Your task to perform on an android device: change your default location settings in chrome Image 0: 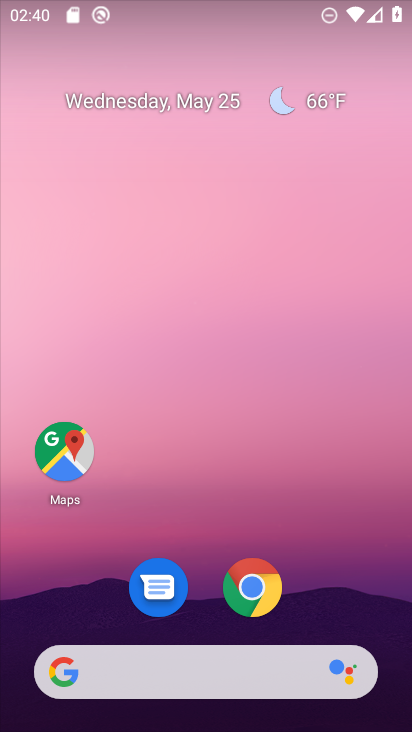
Step 0: drag from (361, 608) to (361, 361)
Your task to perform on an android device: change your default location settings in chrome Image 1: 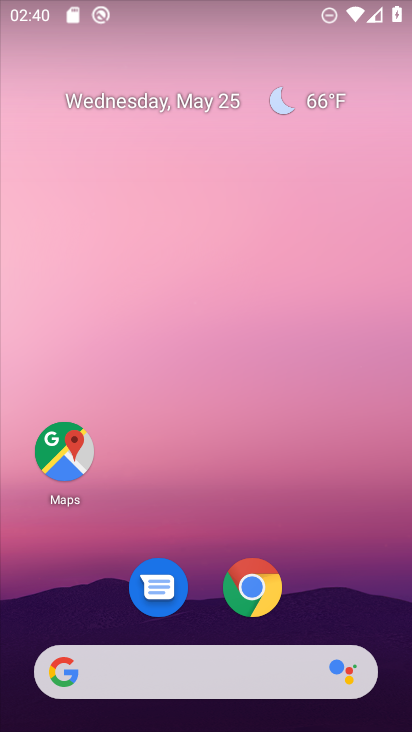
Step 1: drag from (370, 621) to (372, 323)
Your task to perform on an android device: change your default location settings in chrome Image 2: 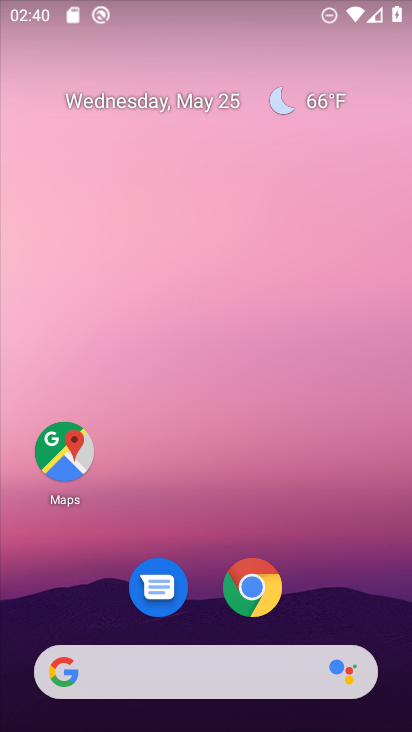
Step 2: drag from (344, 615) to (302, 54)
Your task to perform on an android device: change your default location settings in chrome Image 3: 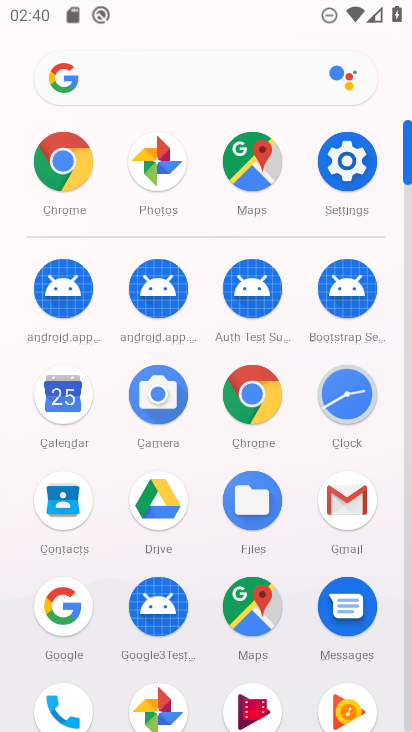
Step 3: click (261, 417)
Your task to perform on an android device: change your default location settings in chrome Image 4: 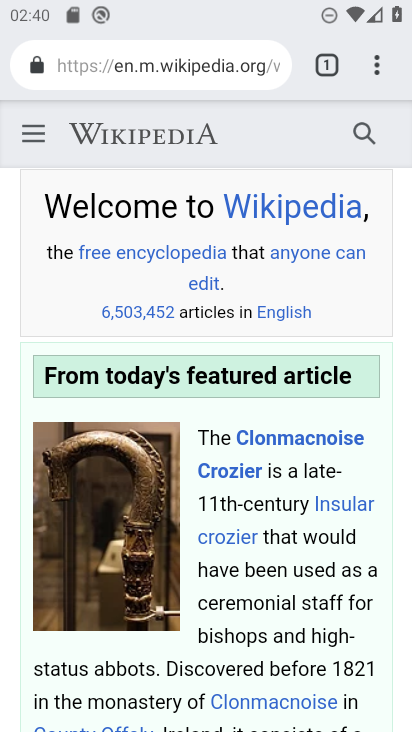
Step 4: click (378, 65)
Your task to perform on an android device: change your default location settings in chrome Image 5: 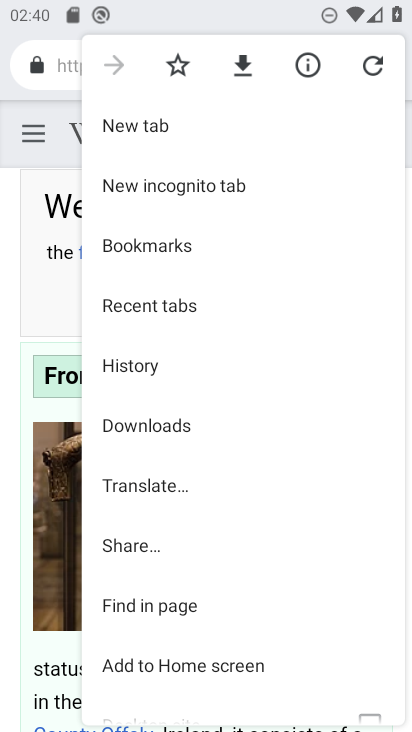
Step 5: drag from (296, 590) to (297, 459)
Your task to perform on an android device: change your default location settings in chrome Image 6: 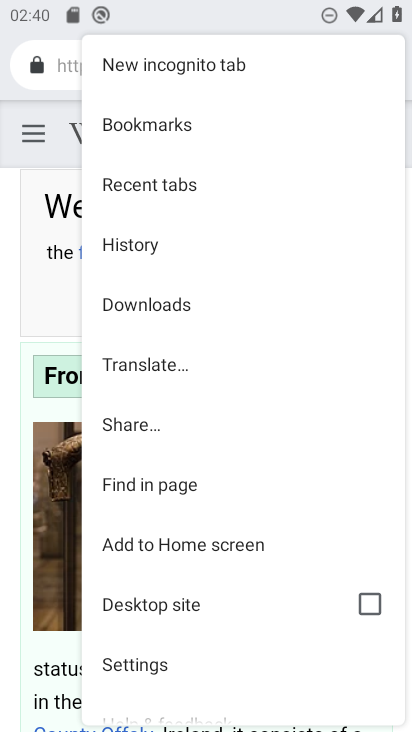
Step 6: drag from (279, 633) to (278, 515)
Your task to perform on an android device: change your default location settings in chrome Image 7: 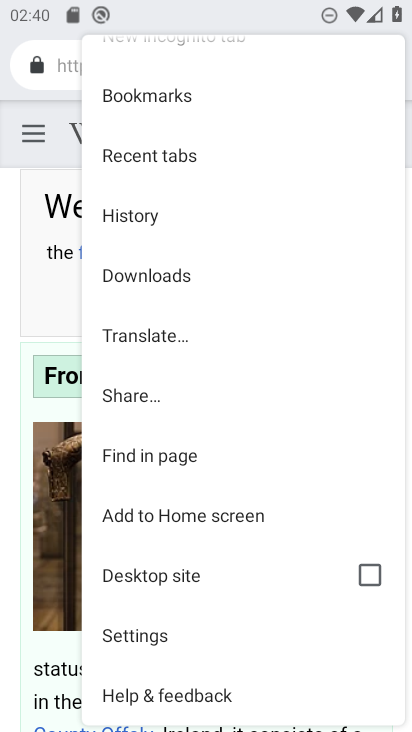
Step 7: drag from (269, 642) to (270, 509)
Your task to perform on an android device: change your default location settings in chrome Image 8: 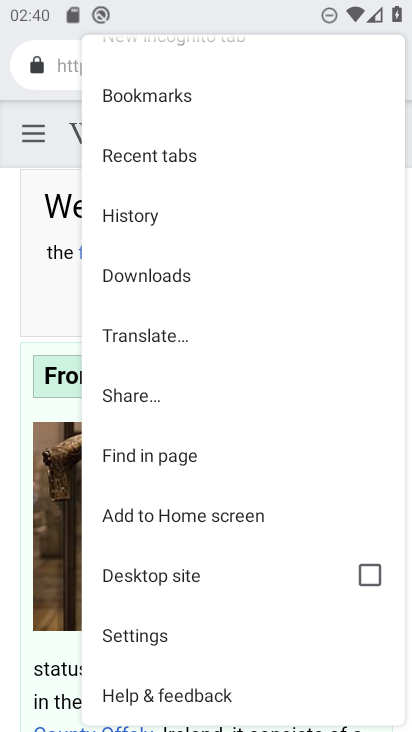
Step 8: click (195, 632)
Your task to perform on an android device: change your default location settings in chrome Image 9: 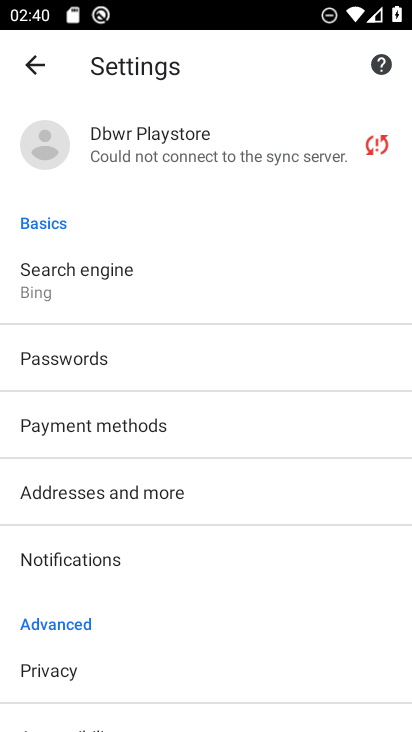
Step 9: drag from (290, 605) to (283, 515)
Your task to perform on an android device: change your default location settings in chrome Image 10: 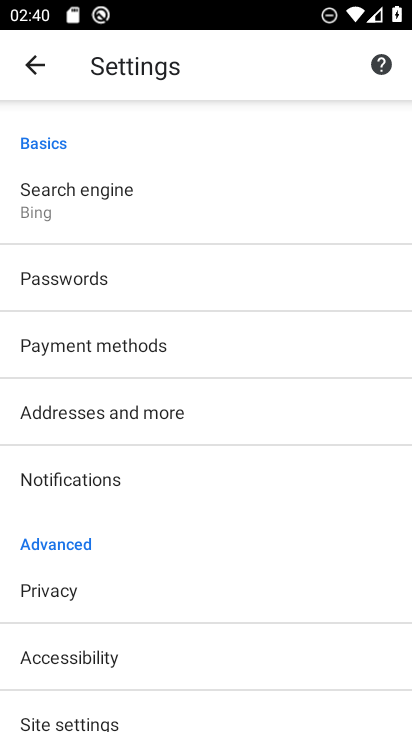
Step 10: drag from (278, 650) to (284, 555)
Your task to perform on an android device: change your default location settings in chrome Image 11: 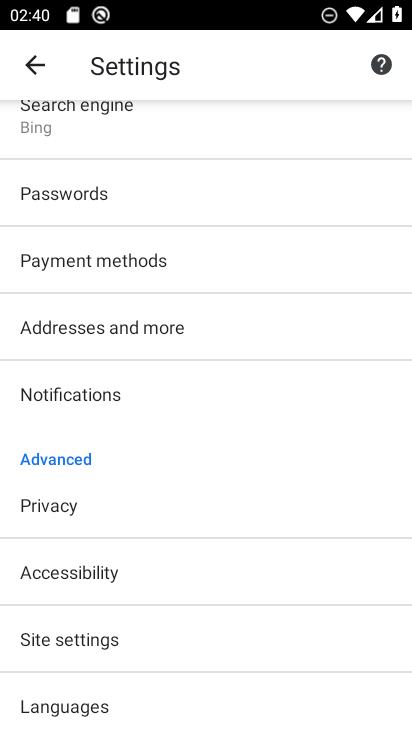
Step 11: drag from (289, 650) to (287, 568)
Your task to perform on an android device: change your default location settings in chrome Image 12: 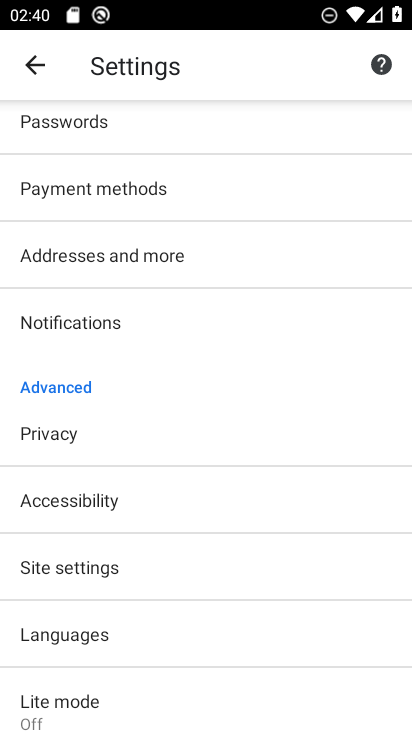
Step 12: drag from (291, 650) to (292, 563)
Your task to perform on an android device: change your default location settings in chrome Image 13: 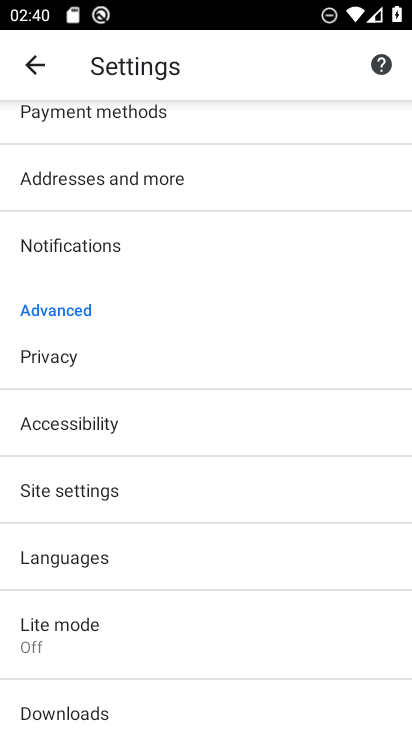
Step 13: drag from (300, 636) to (297, 550)
Your task to perform on an android device: change your default location settings in chrome Image 14: 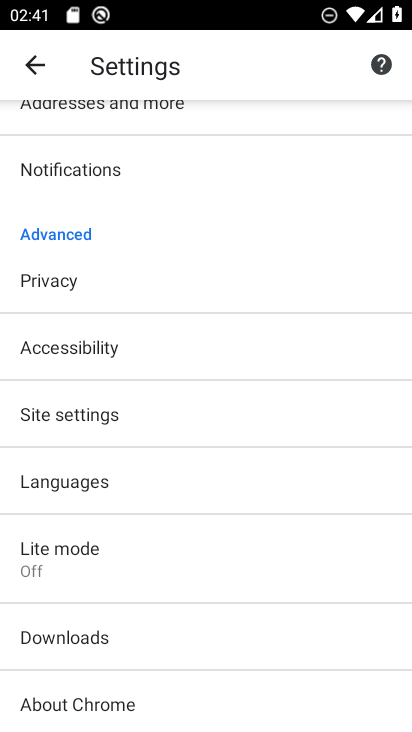
Step 14: click (239, 397)
Your task to perform on an android device: change your default location settings in chrome Image 15: 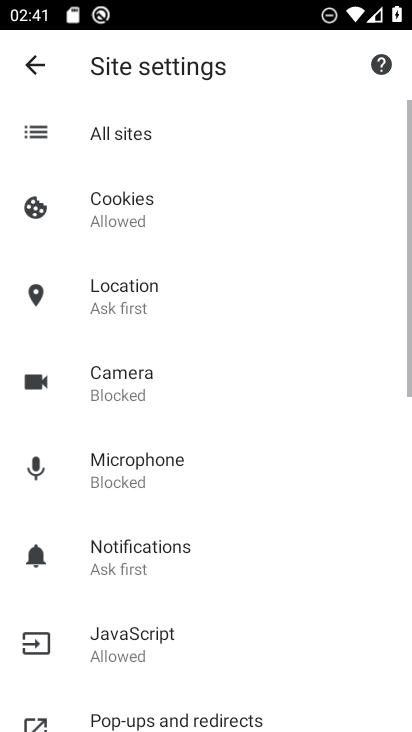
Step 15: drag from (283, 536) to (284, 462)
Your task to perform on an android device: change your default location settings in chrome Image 16: 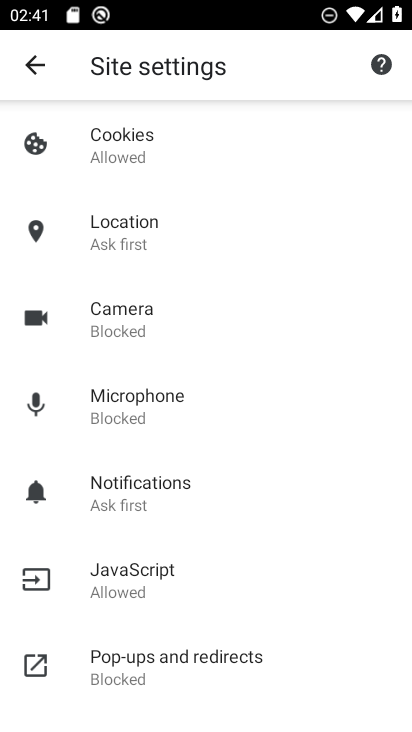
Step 16: drag from (293, 570) to (291, 477)
Your task to perform on an android device: change your default location settings in chrome Image 17: 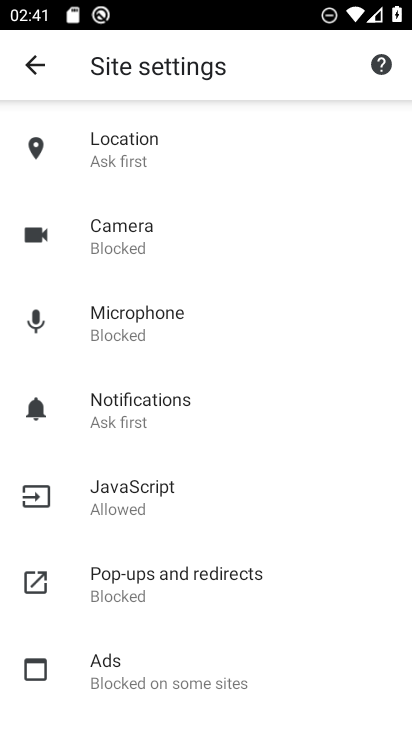
Step 17: drag from (295, 570) to (297, 510)
Your task to perform on an android device: change your default location settings in chrome Image 18: 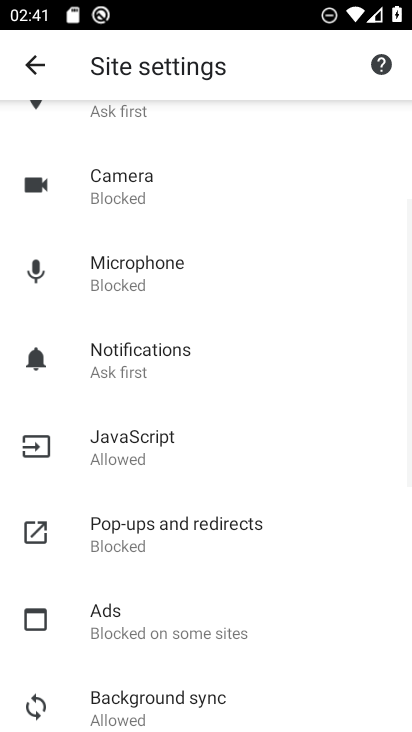
Step 18: drag from (289, 594) to (295, 504)
Your task to perform on an android device: change your default location settings in chrome Image 19: 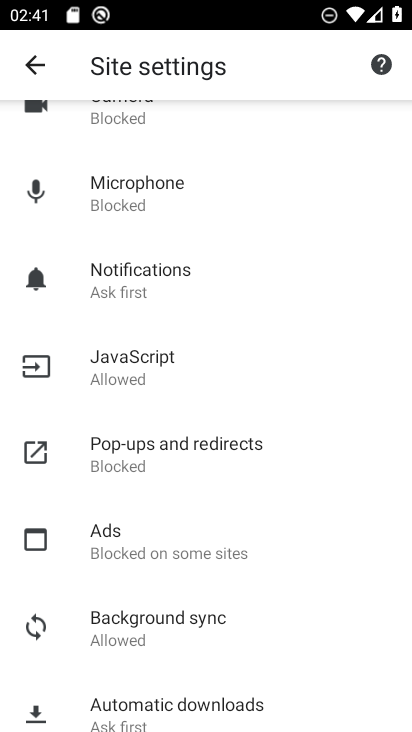
Step 19: drag from (302, 580) to (308, 528)
Your task to perform on an android device: change your default location settings in chrome Image 20: 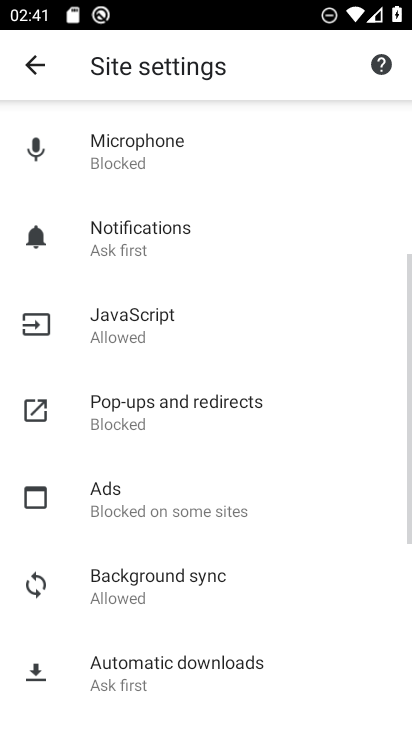
Step 20: drag from (308, 574) to (313, 525)
Your task to perform on an android device: change your default location settings in chrome Image 21: 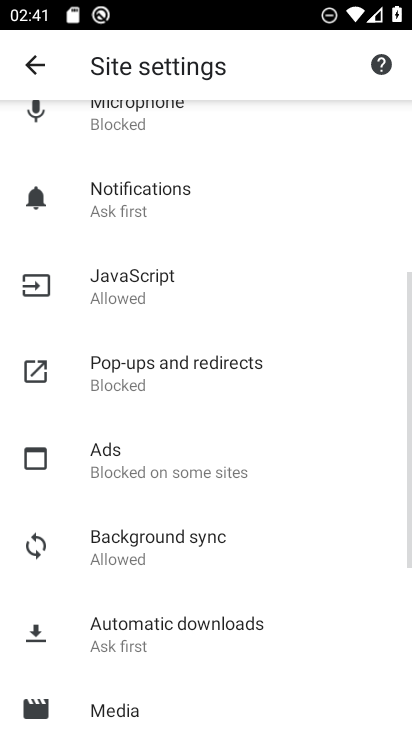
Step 21: drag from (313, 551) to (313, 482)
Your task to perform on an android device: change your default location settings in chrome Image 22: 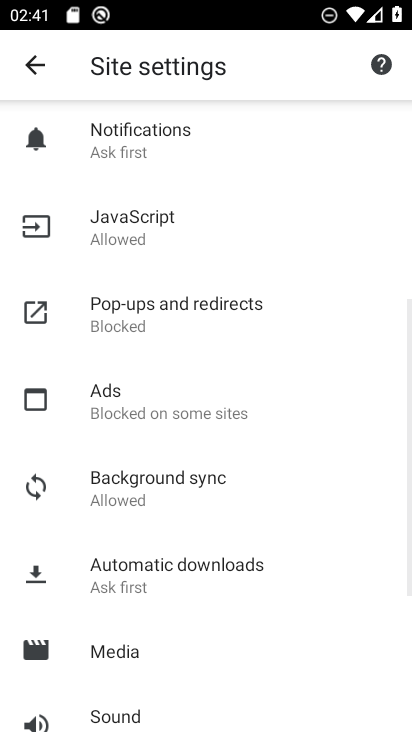
Step 22: drag from (330, 416) to (334, 482)
Your task to perform on an android device: change your default location settings in chrome Image 23: 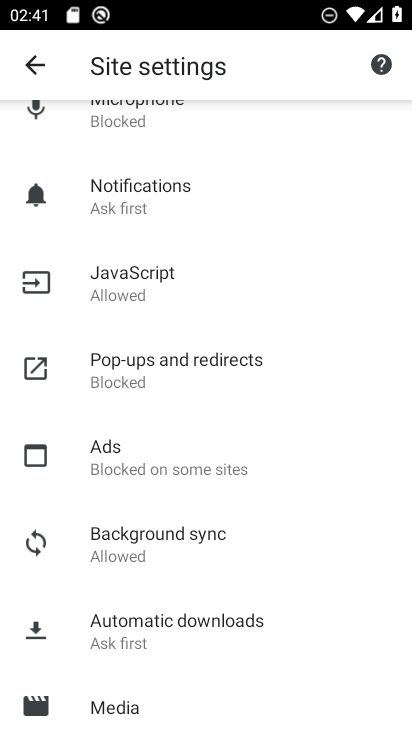
Step 23: drag from (332, 401) to (338, 448)
Your task to perform on an android device: change your default location settings in chrome Image 24: 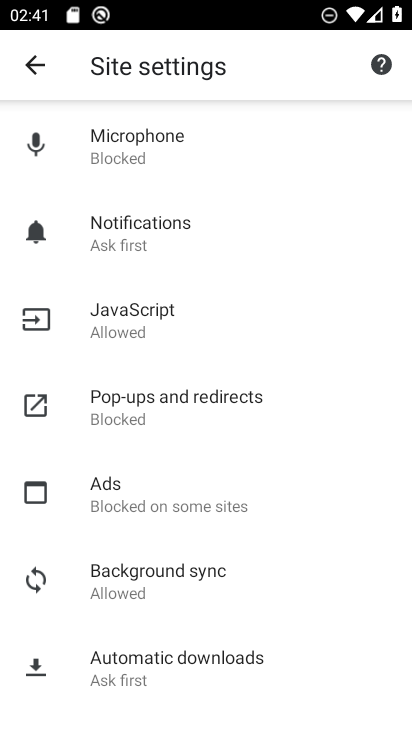
Step 24: drag from (328, 398) to (334, 477)
Your task to perform on an android device: change your default location settings in chrome Image 25: 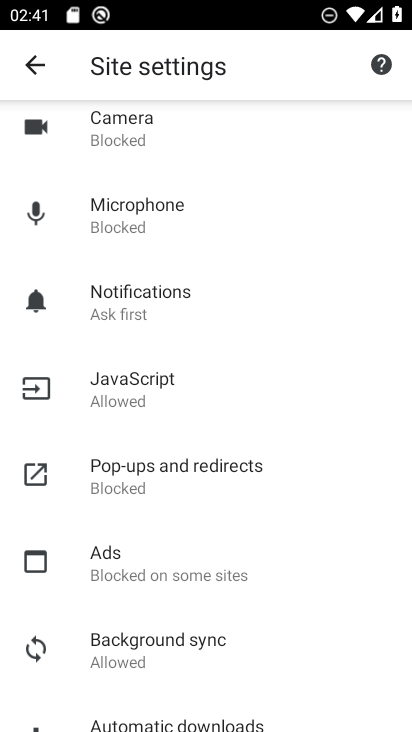
Step 25: drag from (334, 382) to (336, 431)
Your task to perform on an android device: change your default location settings in chrome Image 26: 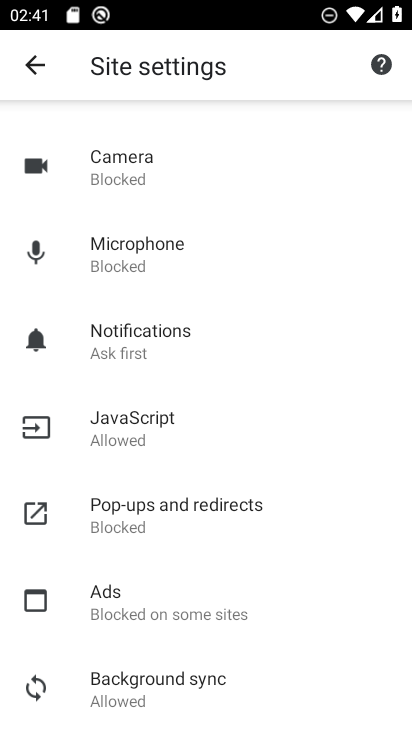
Step 26: drag from (333, 341) to (342, 431)
Your task to perform on an android device: change your default location settings in chrome Image 27: 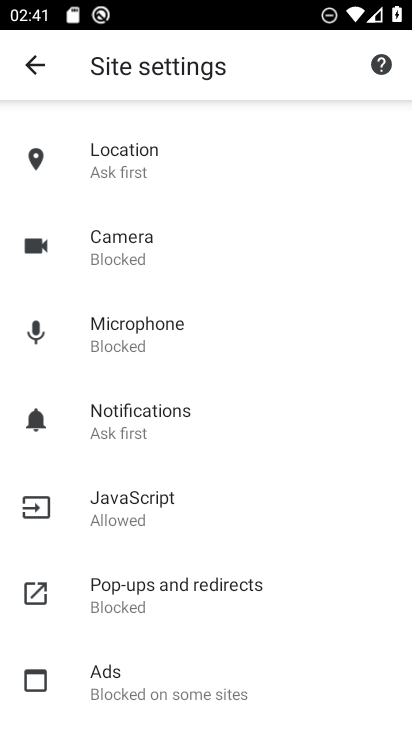
Step 27: drag from (301, 307) to (321, 386)
Your task to perform on an android device: change your default location settings in chrome Image 28: 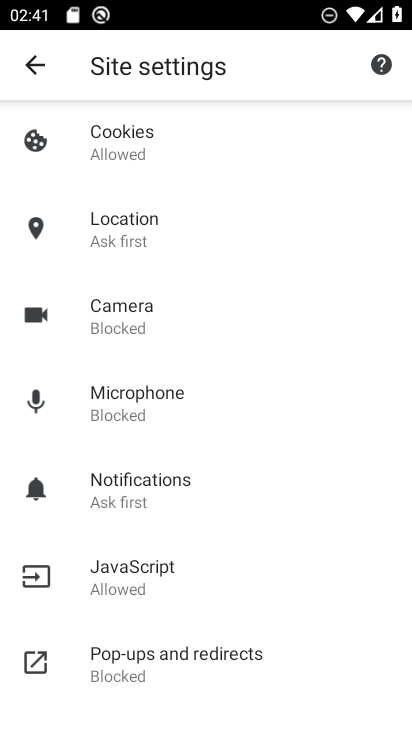
Step 28: click (129, 214)
Your task to perform on an android device: change your default location settings in chrome Image 29: 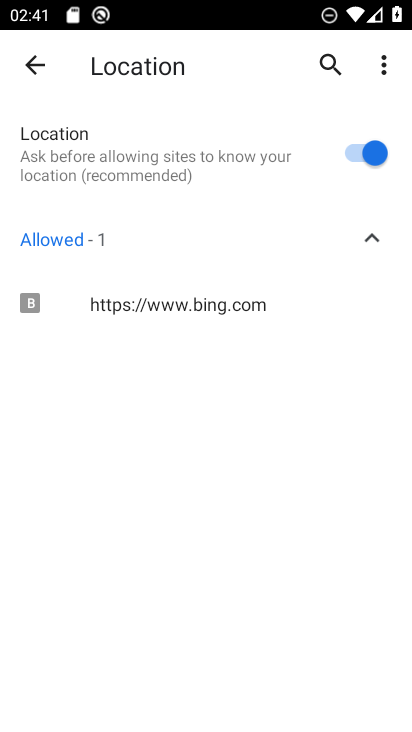
Step 29: click (359, 153)
Your task to perform on an android device: change your default location settings in chrome Image 30: 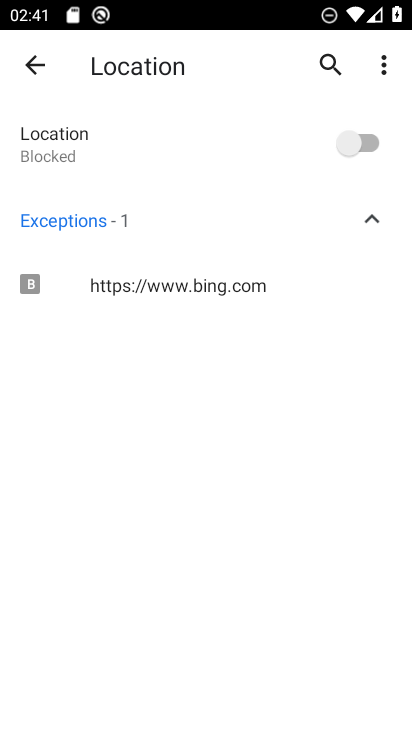
Step 30: task complete